Your task to perform on an android device: turn notification dots off Image 0: 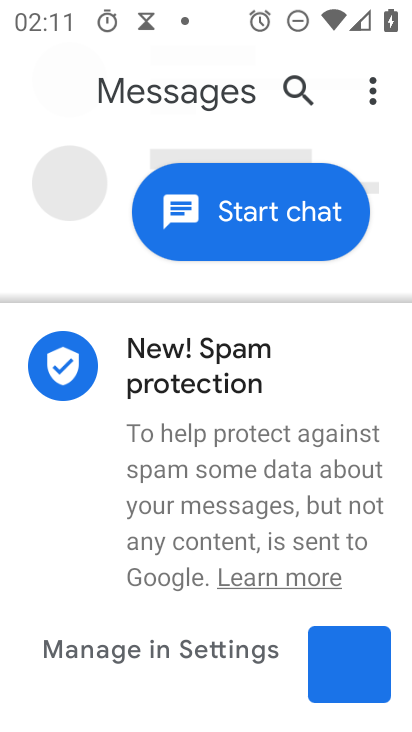
Step 0: press home button
Your task to perform on an android device: turn notification dots off Image 1: 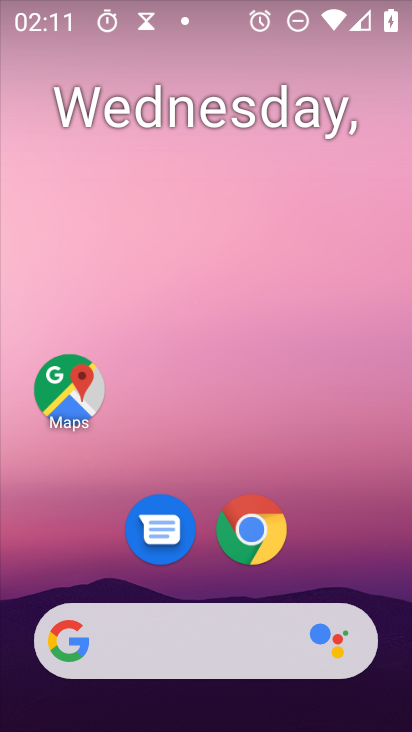
Step 1: drag from (281, 588) to (273, 104)
Your task to perform on an android device: turn notification dots off Image 2: 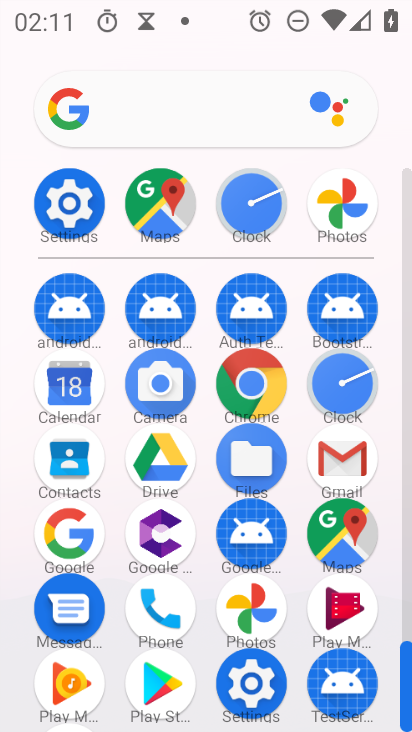
Step 2: click (70, 216)
Your task to perform on an android device: turn notification dots off Image 3: 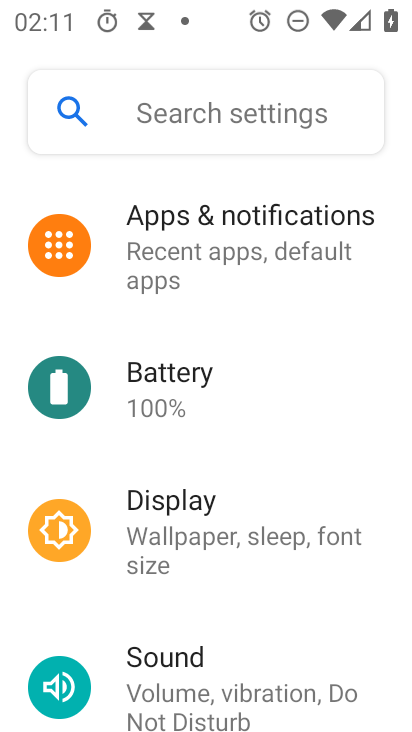
Step 3: click (207, 285)
Your task to perform on an android device: turn notification dots off Image 4: 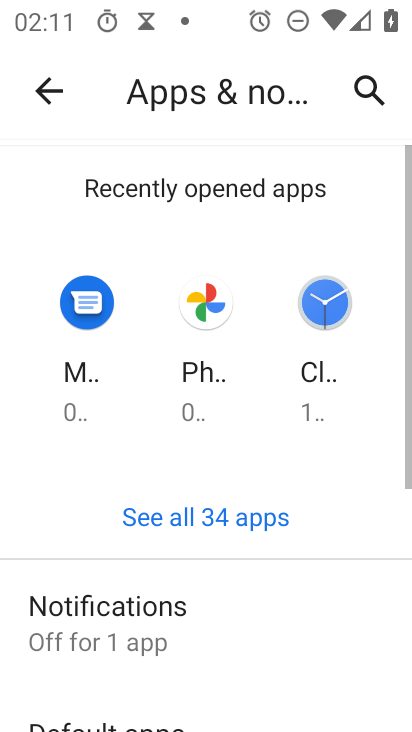
Step 4: drag from (276, 688) to (289, 111)
Your task to perform on an android device: turn notification dots off Image 5: 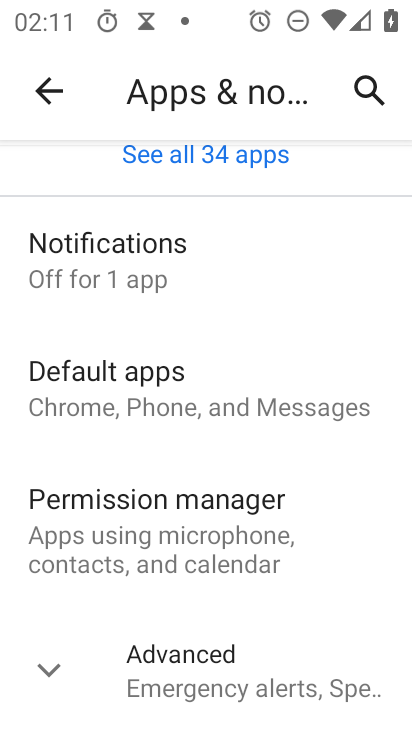
Step 5: click (184, 289)
Your task to perform on an android device: turn notification dots off Image 6: 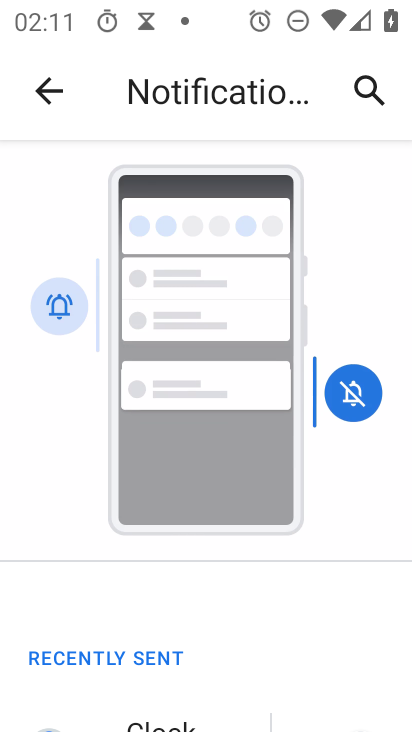
Step 6: drag from (338, 612) to (388, 127)
Your task to perform on an android device: turn notification dots off Image 7: 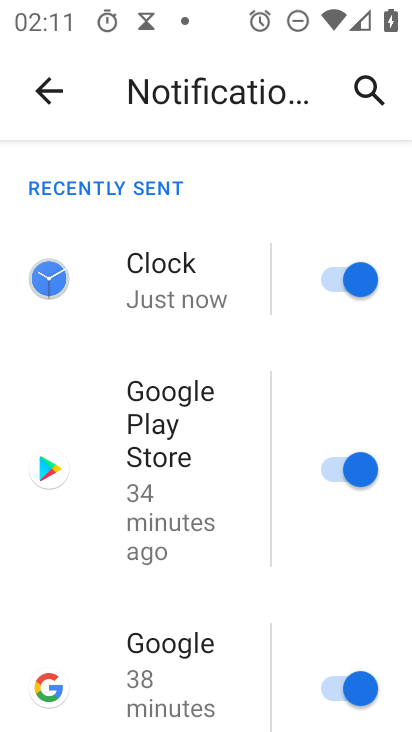
Step 7: drag from (237, 647) to (284, 225)
Your task to perform on an android device: turn notification dots off Image 8: 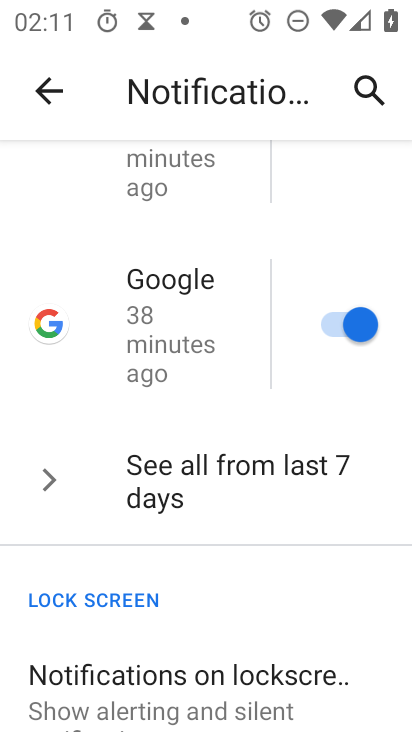
Step 8: drag from (262, 634) to (305, 233)
Your task to perform on an android device: turn notification dots off Image 9: 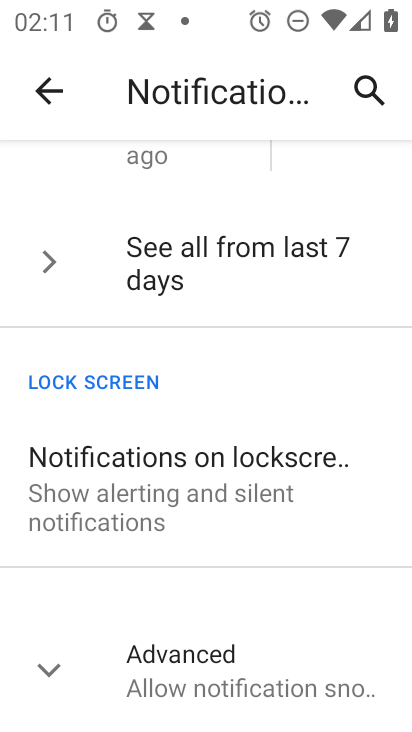
Step 9: click (205, 675)
Your task to perform on an android device: turn notification dots off Image 10: 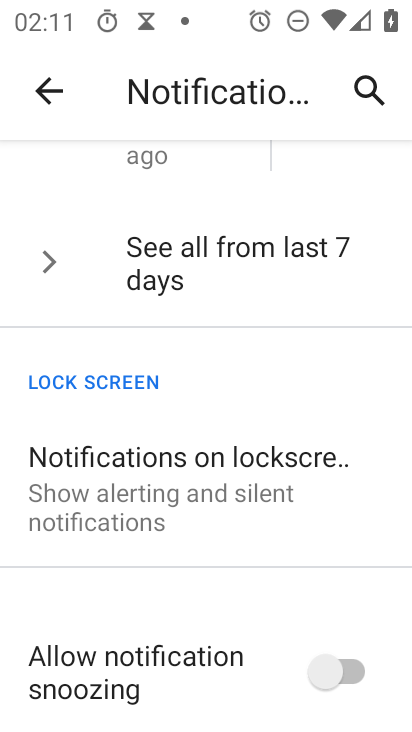
Step 10: drag from (203, 683) to (223, 379)
Your task to perform on an android device: turn notification dots off Image 11: 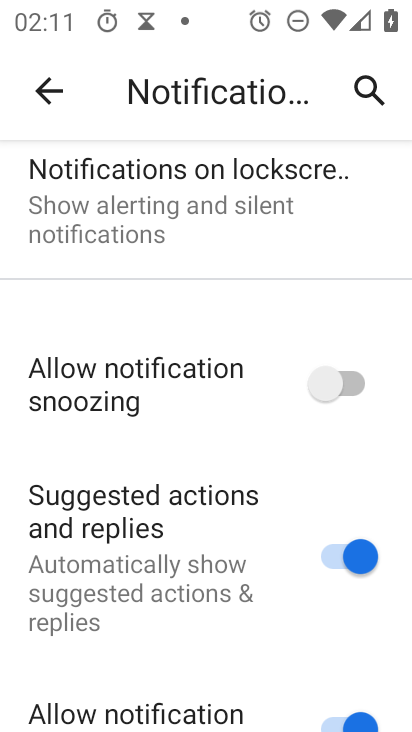
Step 11: drag from (214, 699) to (257, 236)
Your task to perform on an android device: turn notification dots off Image 12: 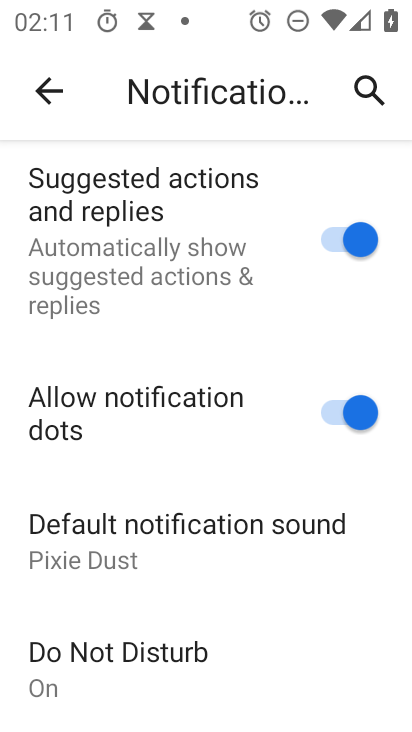
Step 12: click (337, 411)
Your task to perform on an android device: turn notification dots off Image 13: 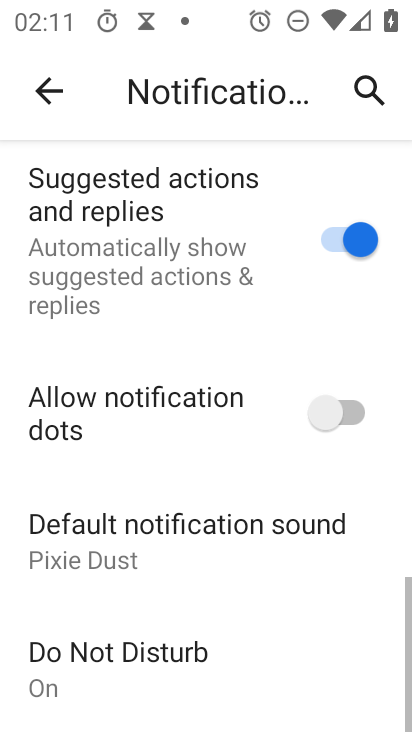
Step 13: task complete